Your task to perform on an android device: Search for sushi restaurants on Maps Image 0: 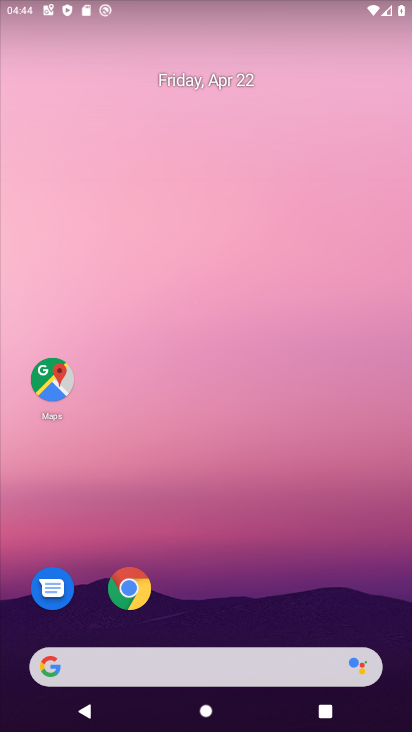
Step 0: click (57, 373)
Your task to perform on an android device: Search for sushi restaurants on Maps Image 1: 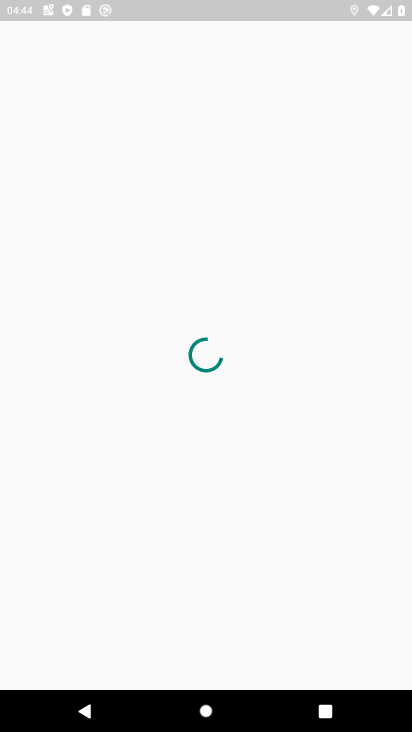
Step 1: click (339, 45)
Your task to perform on an android device: Search for sushi restaurants on Maps Image 2: 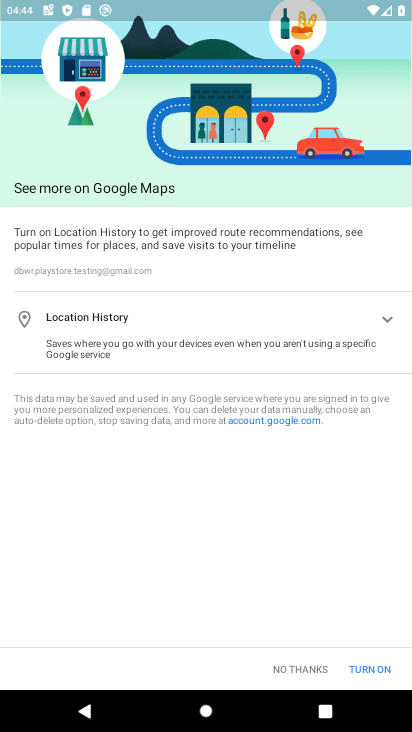
Step 2: click (369, 668)
Your task to perform on an android device: Search for sushi restaurants on Maps Image 3: 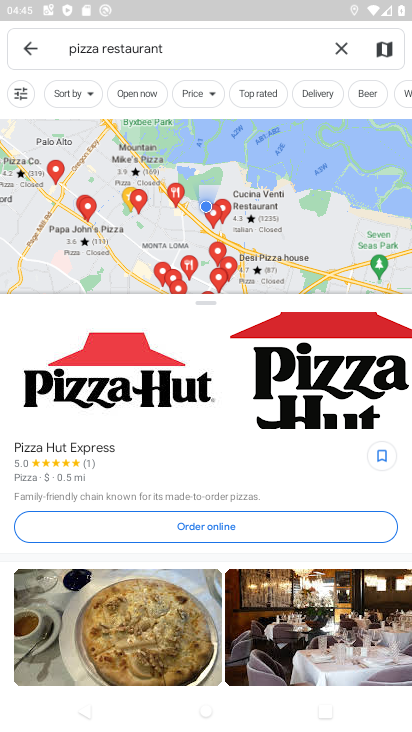
Step 3: click (339, 47)
Your task to perform on an android device: Search for sushi restaurants on Maps Image 4: 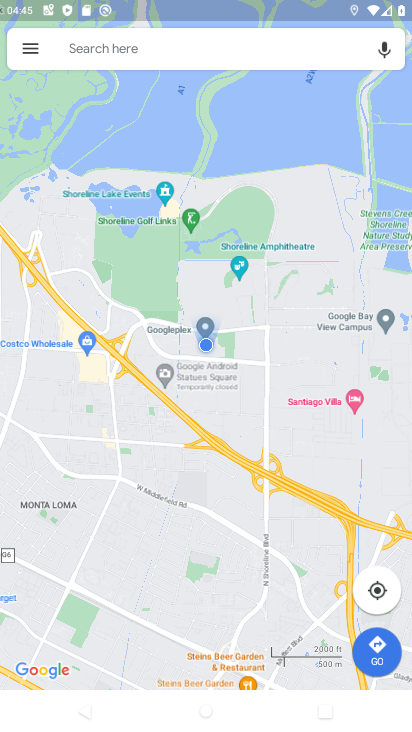
Step 4: click (212, 49)
Your task to perform on an android device: Search for sushi restaurants on Maps Image 5: 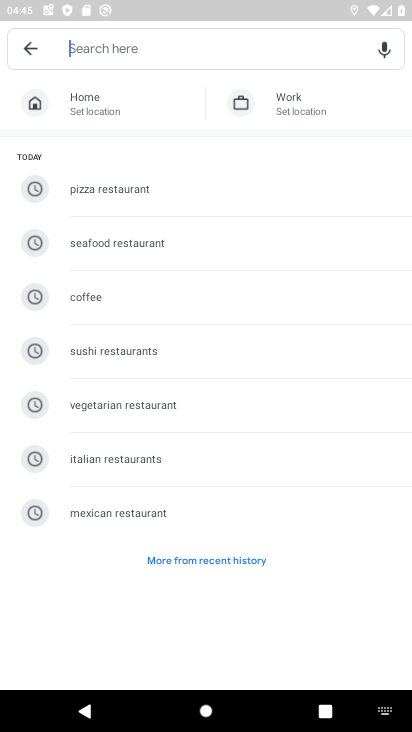
Step 5: click (136, 346)
Your task to perform on an android device: Search for sushi restaurants on Maps Image 6: 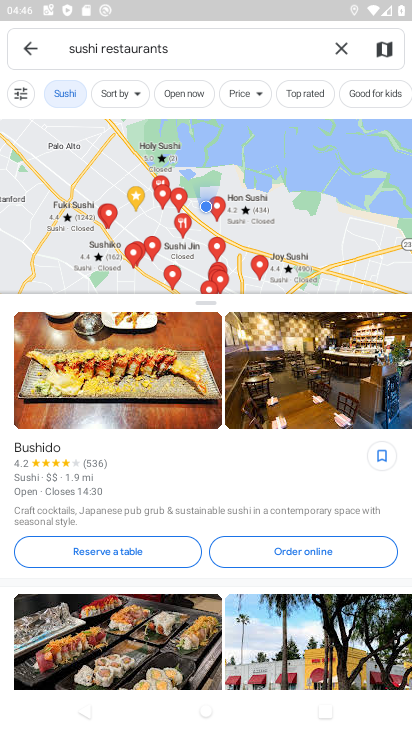
Step 6: task complete